Your task to perform on an android device: choose inbox layout in the gmail app Image 0: 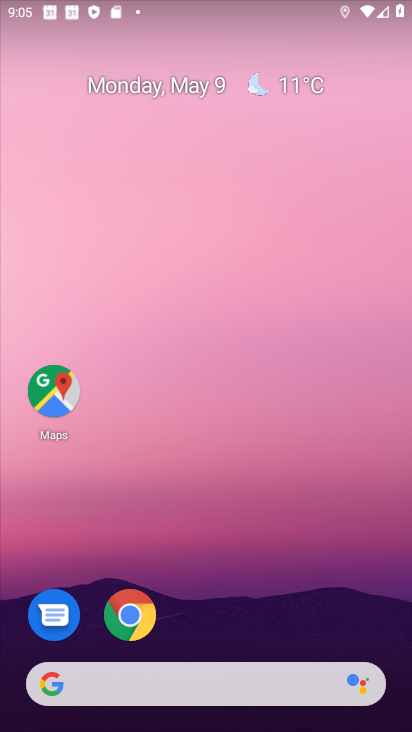
Step 0: drag from (257, 548) to (222, 38)
Your task to perform on an android device: choose inbox layout in the gmail app Image 1: 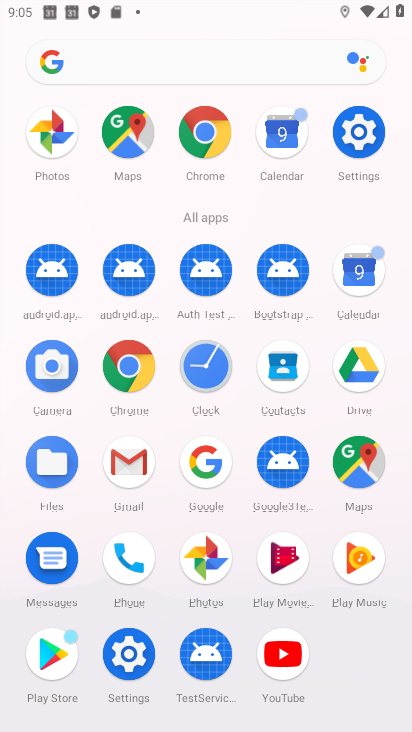
Step 1: click (127, 457)
Your task to perform on an android device: choose inbox layout in the gmail app Image 2: 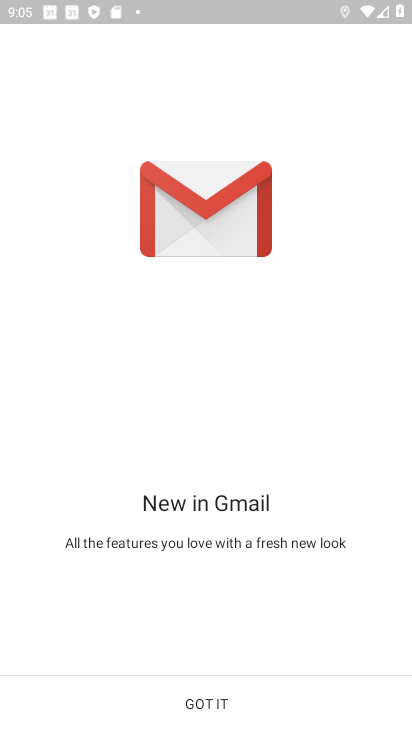
Step 2: click (232, 698)
Your task to perform on an android device: choose inbox layout in the gmail app Image 3: 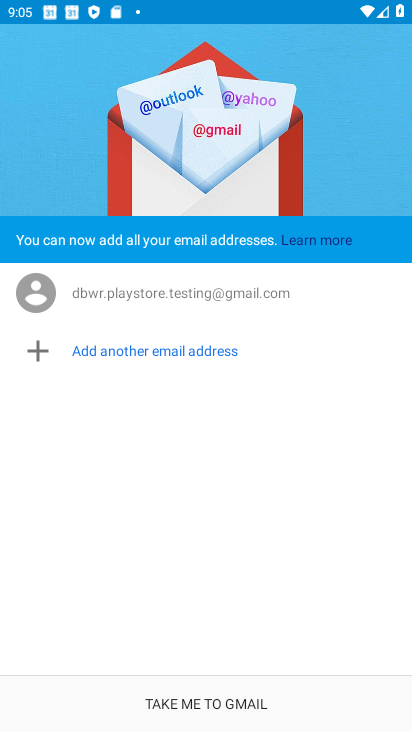
Step 3: click (232, 698)
Your task to perform on an android device: choose inbox layout in the gmail app Image 4: 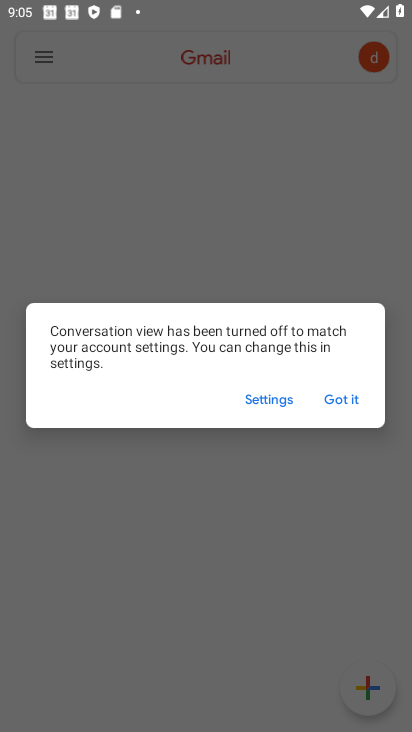
Step 4: click (327, 401)
Your task to perform on an android device: choose inbox layout in the gmail app Image 5: 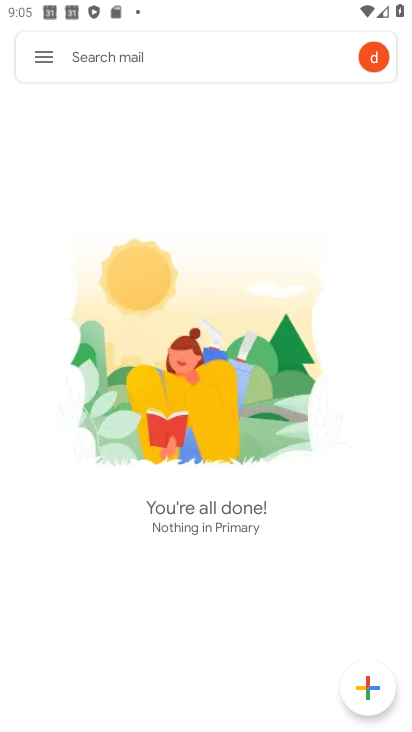
Step 5: click (45, 66)
Your task to perform on an android device: choose inbox layout in the gmail app Image 6: 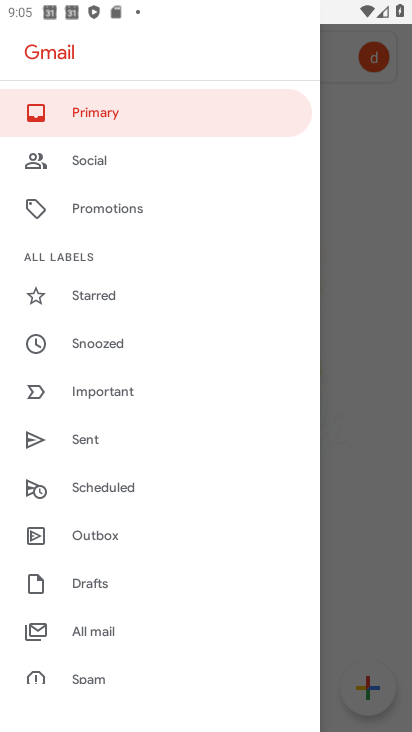
Step 6: drag from (152, 599) to (216, 100)
Your task to perform on an android device: choose inbox layout in the gmail app Image 7: 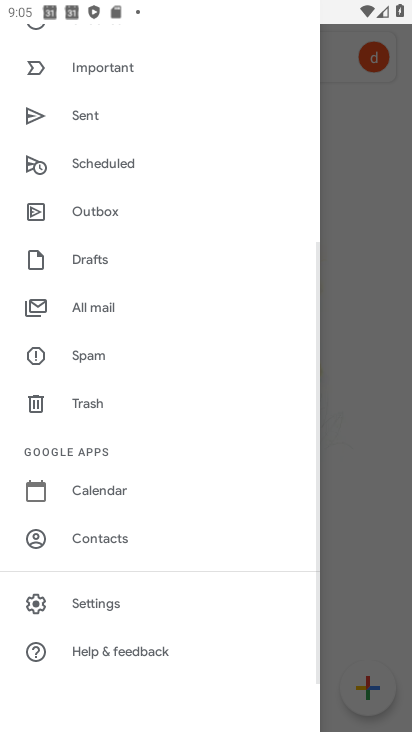
Step 7: click (91, 604)
Your task to perform on an android device: choose inbox layout in the gmail app Image 8: 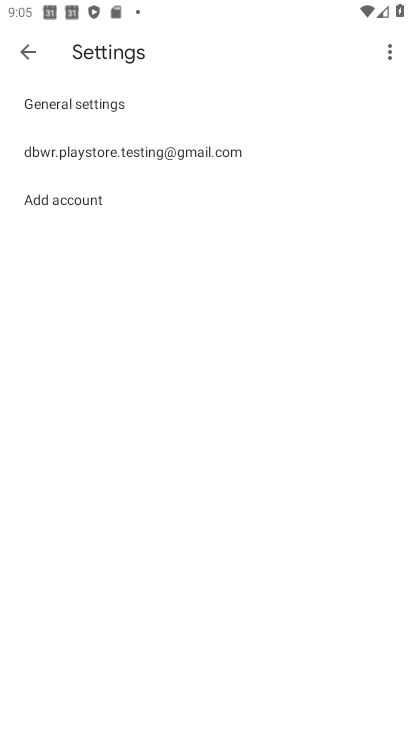
Step 8: click (148, 149)
Your task to perform on an android device: choose inbox layout in the gmail app Image 9: 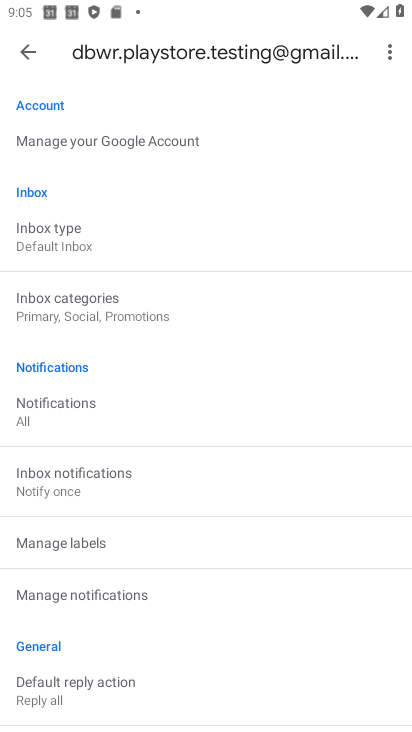
Step 9: click (95, 249)
Your task to perform on an android device: choose inbox layout in the gmail app Image 10: 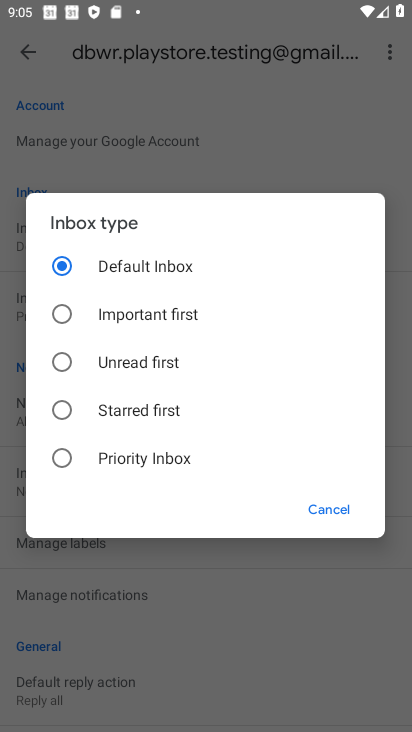
Step 10: click (145, 312)
Your task to perform on an android device: choose inbox layout in the gmail app Image 11: 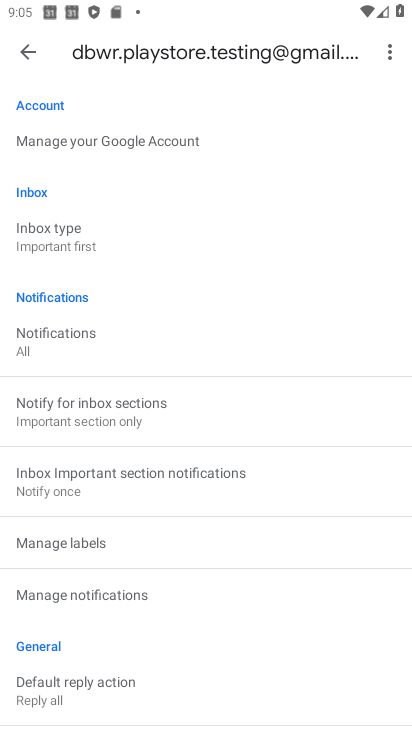
Step 11: task complete